Your task to perform on an android device: Open Google Maps Image 0: 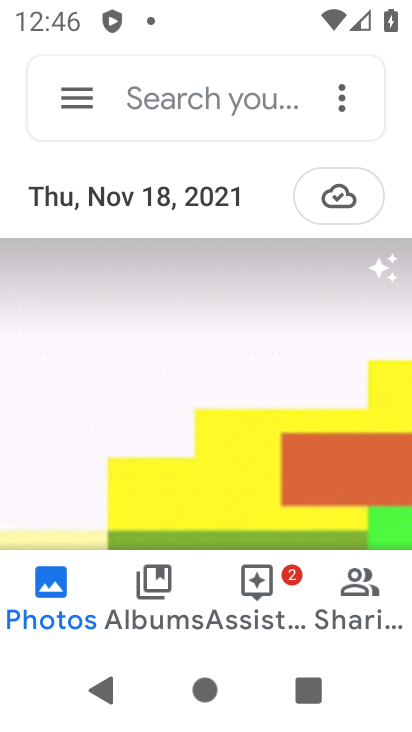
Step 0: press home button
Your task to perform on an android device: Open Google Maps Image 1: 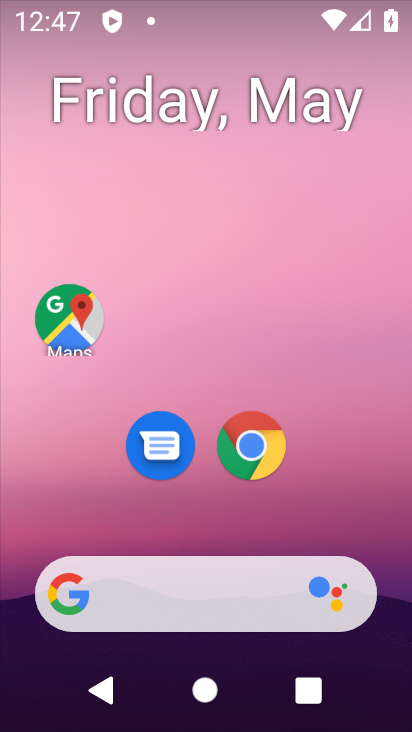
Step 1: drag from (238, 530) to (202, 5)
Your task to perform on an android device: Open Google Maps Image 2: 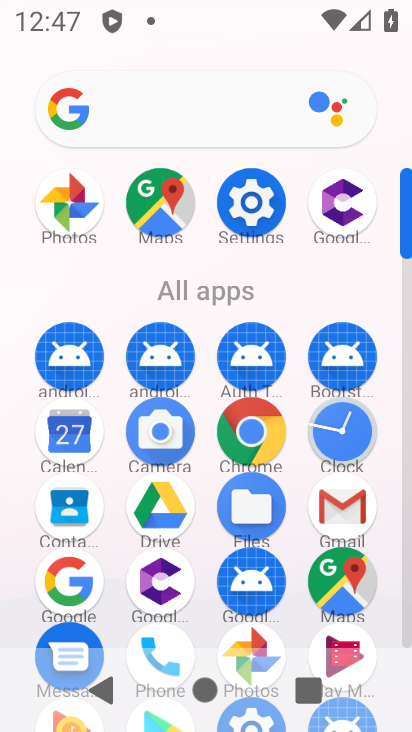
Step 2: click (166, 197)
Your task to perform on an android device: Open Google Maps Image 3: 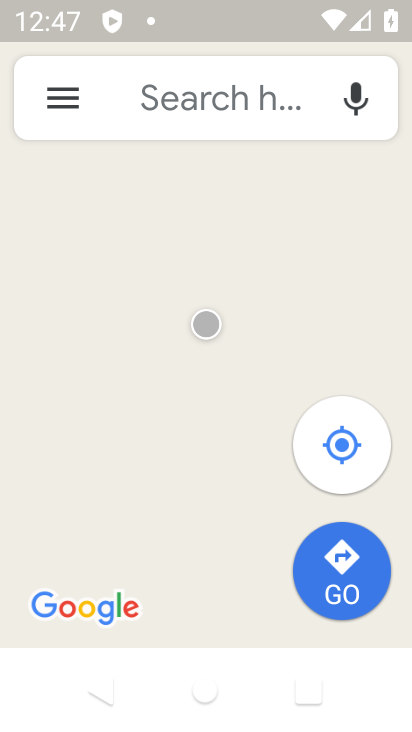
Step 3: task complete